Your task to perform on an android device: Open settings on Google Maps Image 0: 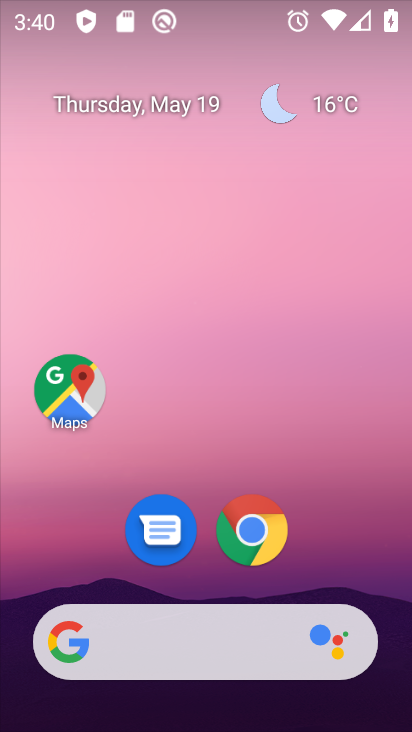
Step 0: click (73, 404)
Your task to perform on an android device: Open settings on Google Maps Image 1: 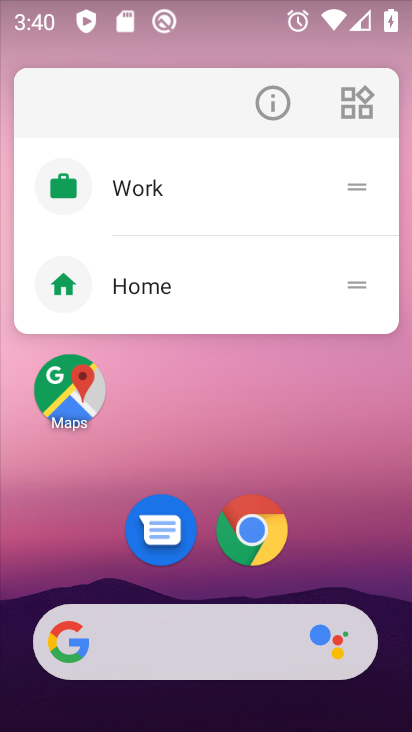
Step 1: click (73, 404)
Your task to perform on an android device: Open settings on Google Maps Image 2: 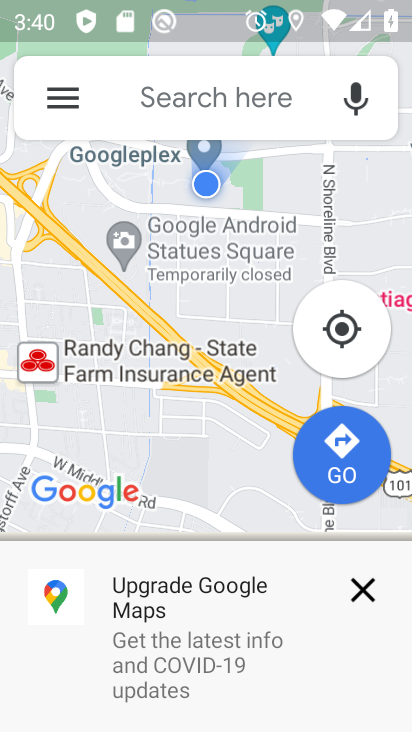
Step 2: click (68, 95)
Your task to perform on an android device: Open settings on Google Maps Image 3: 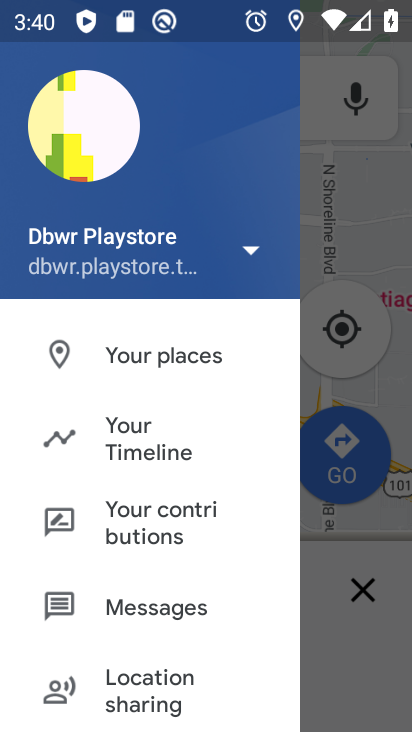
Step 3: drag from (162, 609) to (172, 240)
Your task to perform on an android device: Open settings on Google Maps Image 4: 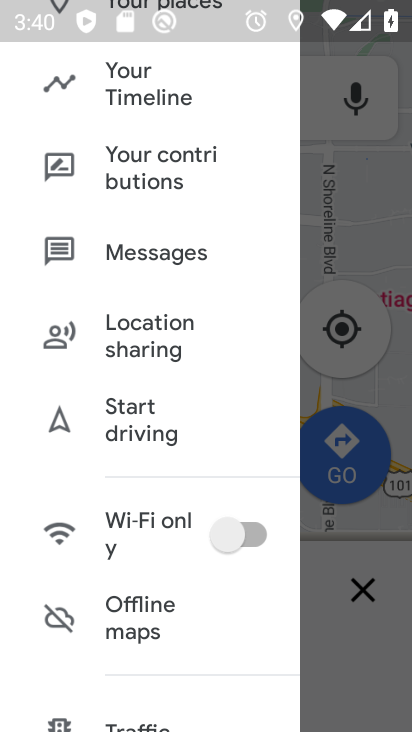
Step 4: drag from (169, 691) to (169, 348)
Your task to perform on an android device: Open settings on Google Maps Image 5: 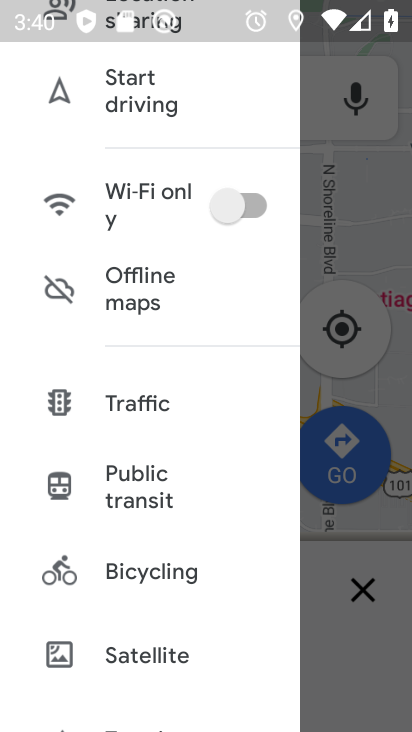
Step 5: drag from (159, 636) to (164, 305)
Your task to perform on an android device: Open settings on Google Maps Image 6: 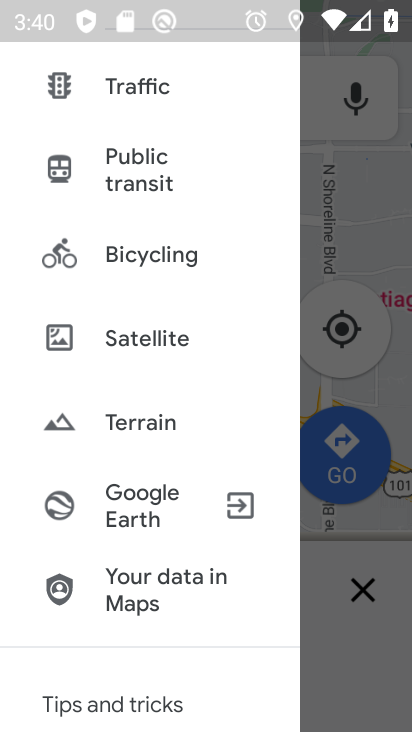
Step 6: drag from (173, 673) to (195, 318)
Your task to perform on an android device: Open settings on Google Maps Image 7: 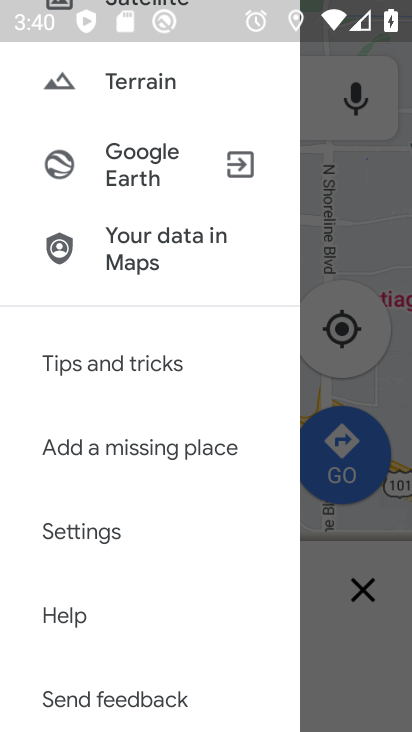
Step 7: click (141, 536)
Your task to perform on an android device: Open settings on Google Maps Image 8: 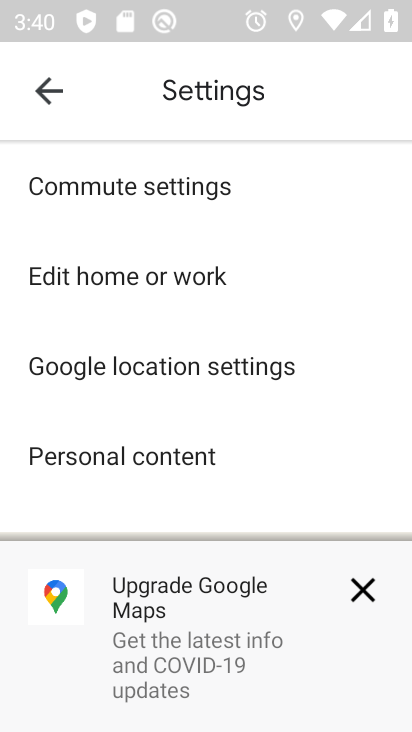
Step 8: task complete